Your task to perform on an android device: Show me productivity apps on the Play Store Image 0: 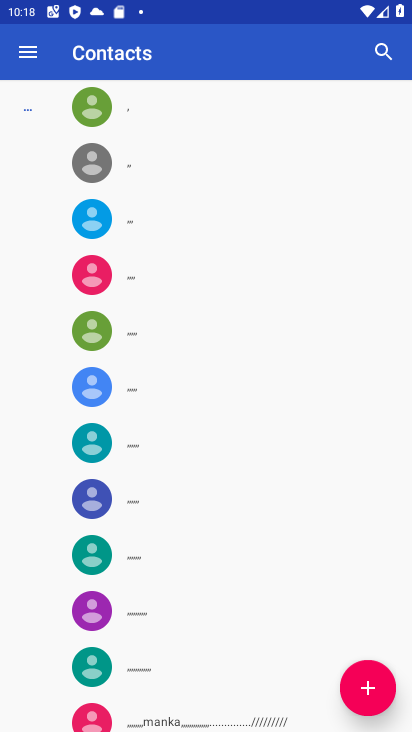
Step 0: press back button
Your task to perform on an android device: Show me productivity apps on the Play Store Image 1: 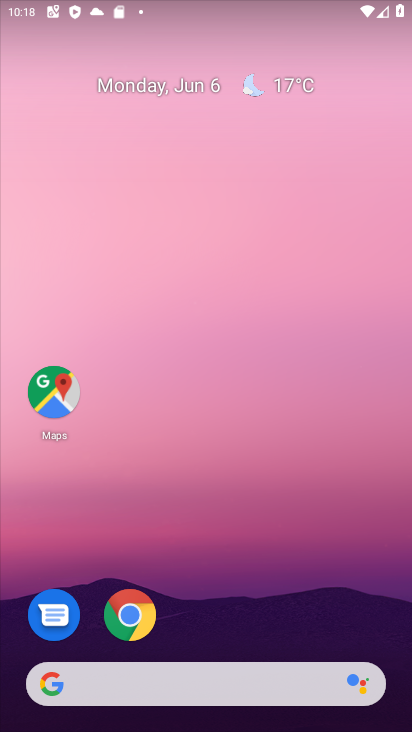
Step 1: drag from (257, 628) to (327, 69)
Your task to perform on an android device: Show me productivity apps on the Play Store Image 2: 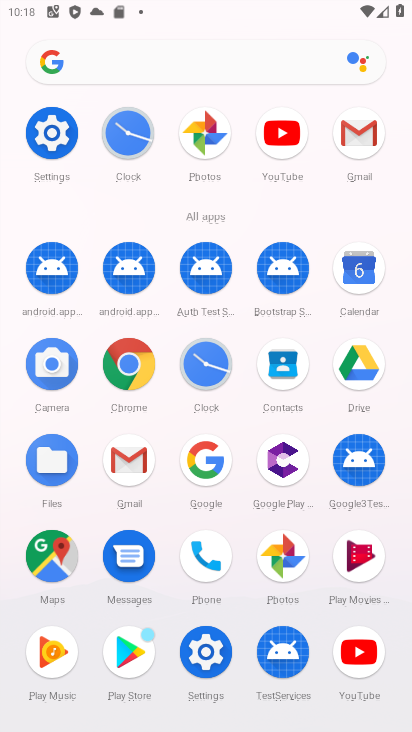
Step 2: click (129, 662)
Your task to perform on an android device: Show me productivity apps on the Play Store Image 3: 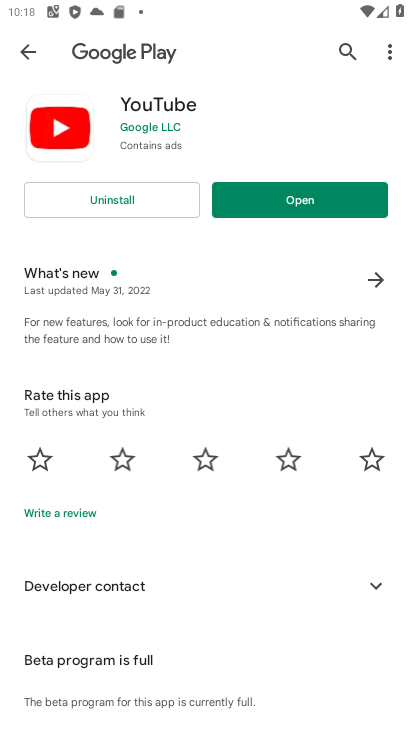
Step 3: click (19, 30)
Your task to perform on an android device: Show me productivity apps on the Play Store Image 4: 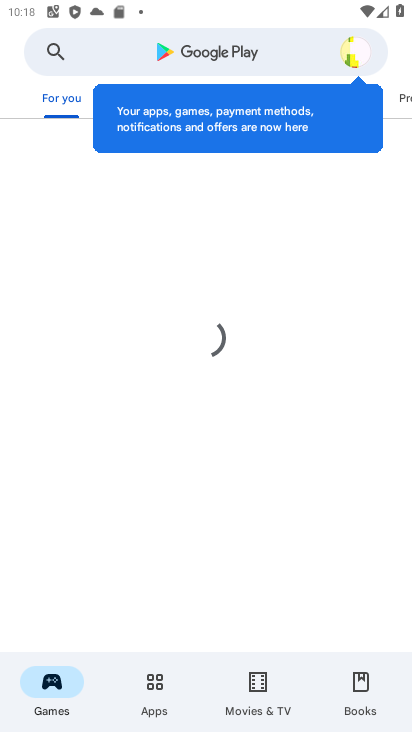
Step 4: click (156, 702)
Your task to perform on an android device: Show me productivity apps on the Play Store Image 5: 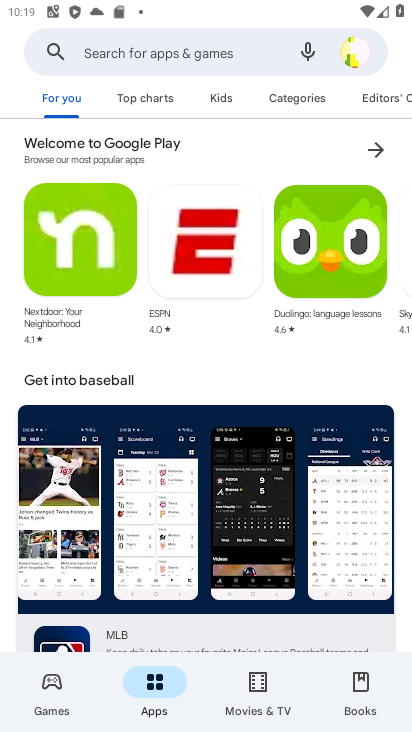
Step 5: drag from (179, 530) to (238, 106)
Your task to perform on an android device: Show me productivity apps on the Play Store Image 6: 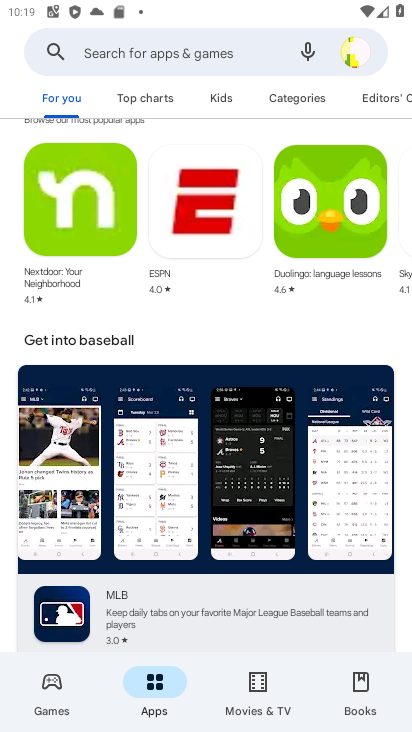
Step 6: drag from (185, 545) to (194, 133)
Your task to perform on an android device: Show me productivity apps on the Play Store Image 7: 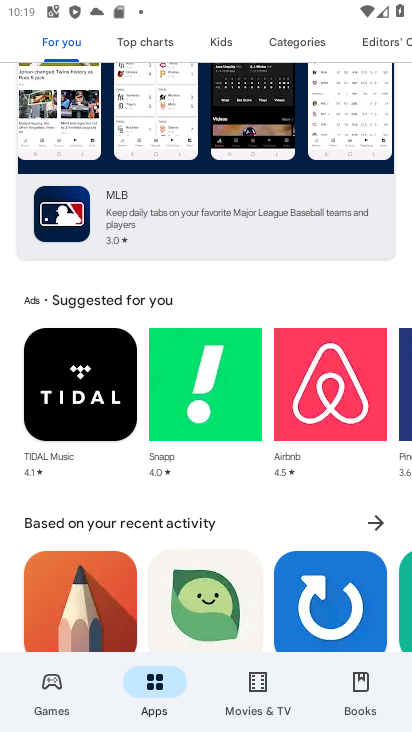
Step 7: drag from (244, 606) to (215, 670)
Your task to perform on an android device: Show me productivity apps on the Play Store Image 8: 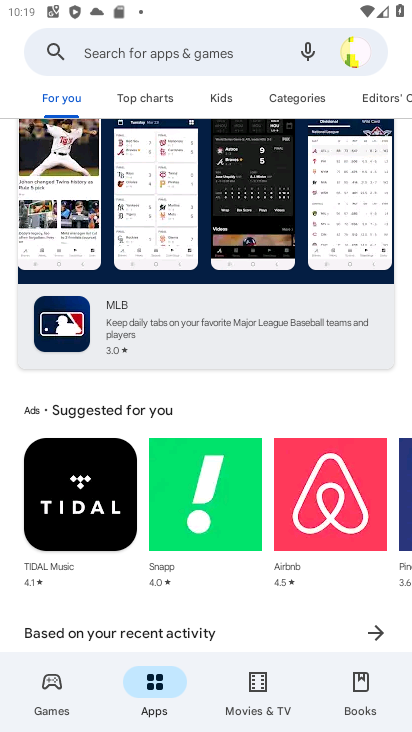
Step 8: drag from (261, 259) to (195, 689)
Your task to perform on an android device: Show me productivity apps on the Play Store Image 9: 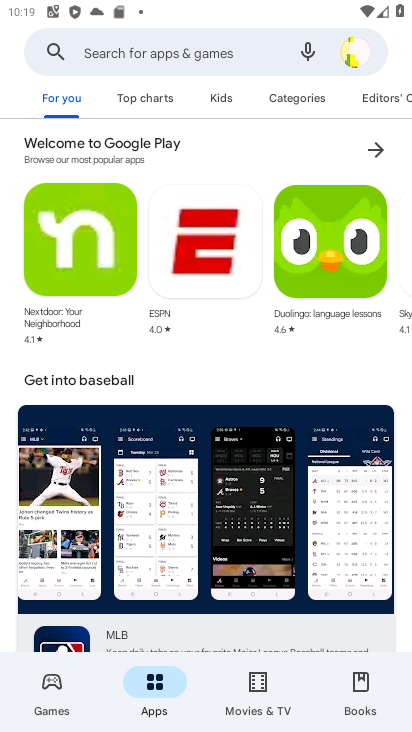
Step 9: drag from (243, 283) to (257, 188)
Your task to perform on an android device: Show me productivity apps on the Play Store Image 10: 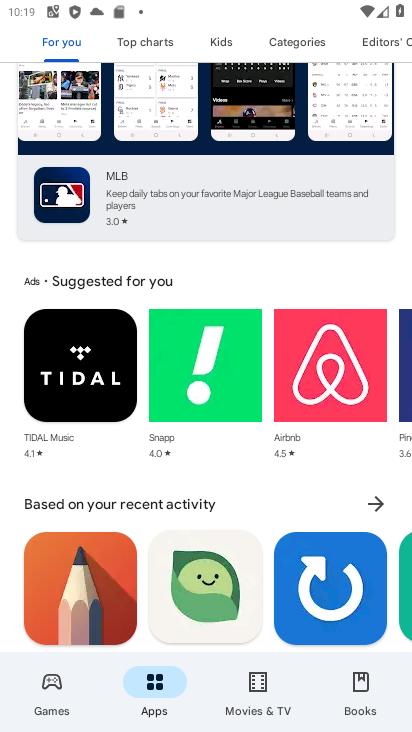
Step 10: drag from (228, 522) to (291, 105)
Your task to perform on an android device: Show me productivity apps on the Play Store Image 11: 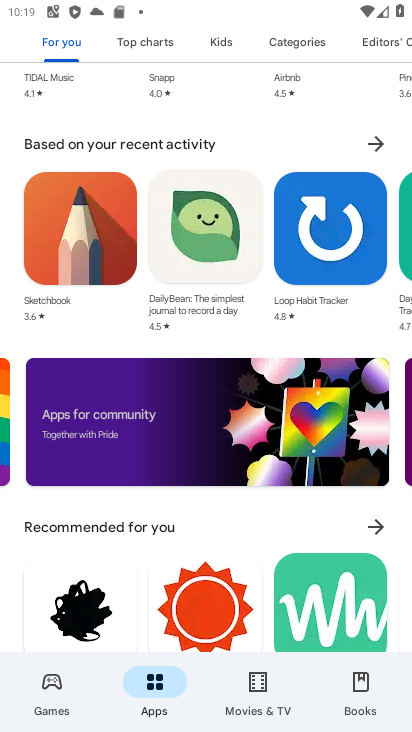
Step 11: drag from (225, 509) to (289, 65)
Your task to perform on an android device: Show me productivity apps on the Play Store Image 12: 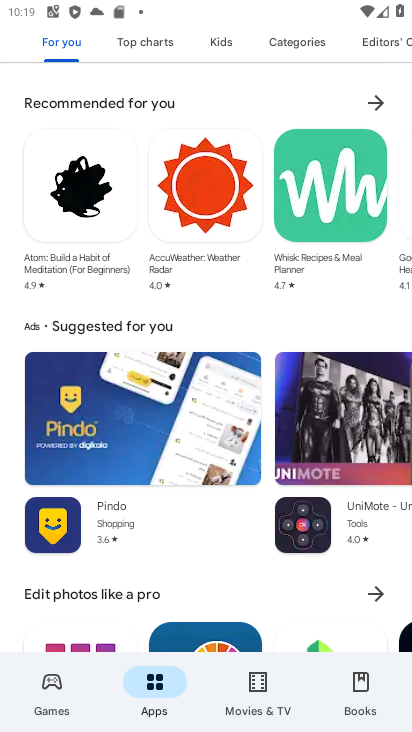
Step 12: drag from (225, 584) to (280, 100)
Your task to perform on an android device: Show me productivity apps on the Play Store Image 13: 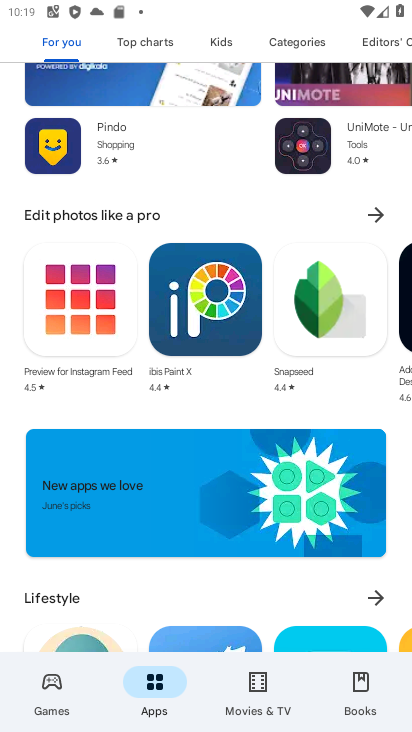
Step 13: drag from (199, 543) to (274, 143)
Your task to perform on an android device: Show me productivity apps on the Play Store Image 14: 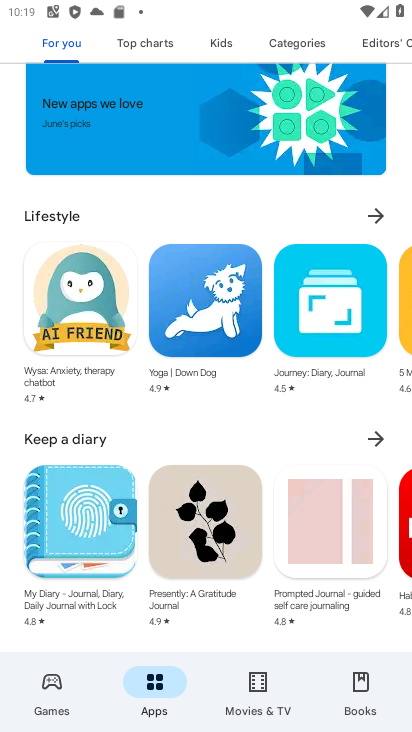
Step 14: drag from (238, 456) to (279, 164)
Your task to perform on an android device: Show me productivity apps on the Play Store Image 15: 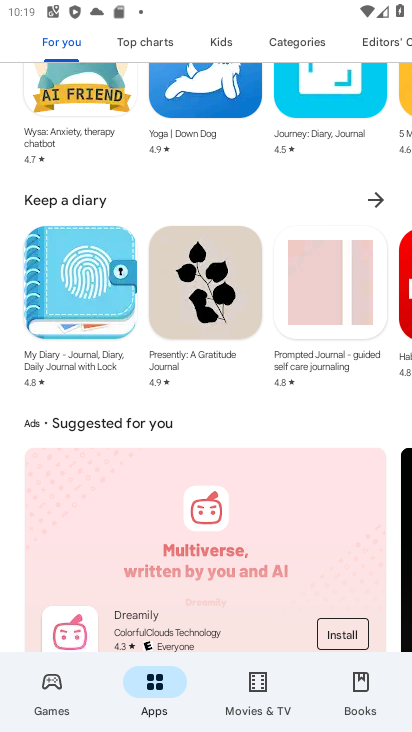
Step 15: drag from (219, 538) to (301, 105)
Your task to perform on an android device: Show me productivity apps on the Play Store Image 16: 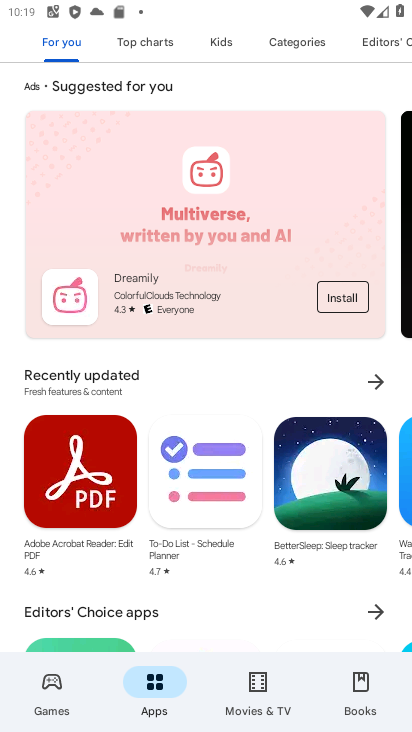
Step 16: drag from (248, 396) to (314, 180)
Your task to perform on an android device: Show me productivity apps on the Play Store Image 17: 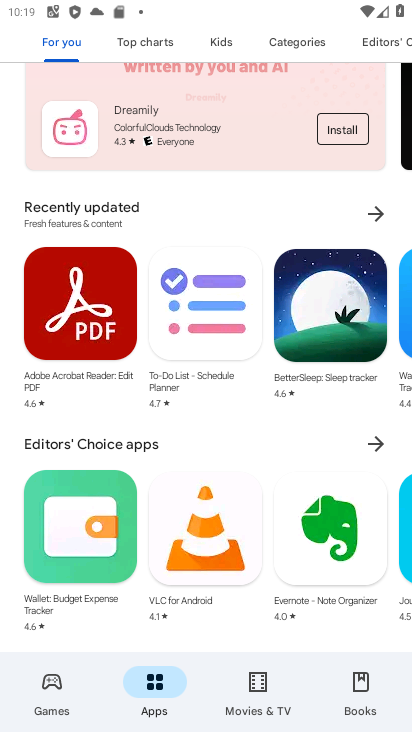
Step 17: drag from (245, 563) to (298, 236)
Your task to perform on an android device: Show me productivity apps on the Play Store Image 18: 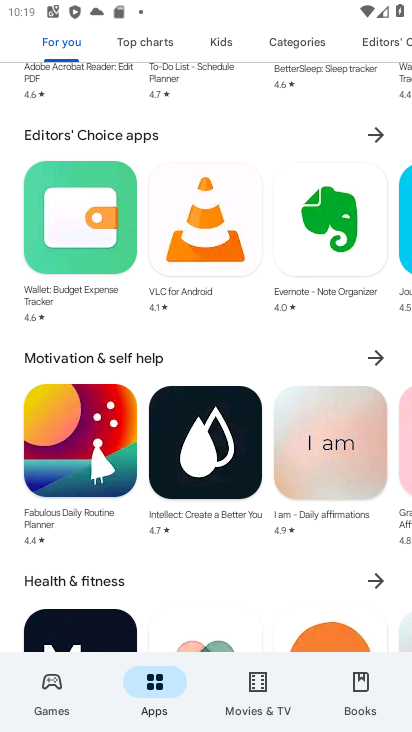
Step 18: drag from (218, 598) to (185, 284)
Your task to perform on an android device: Show me productivity apps on the Play Store Image 19: 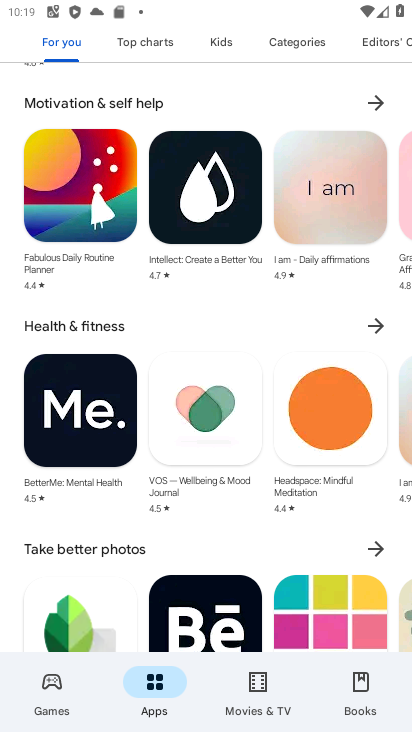
Step 19: drag from (201, 578) to (274, 178)
Your task to perform on an android device: Show me productivity apps on the Play Store Image 20: 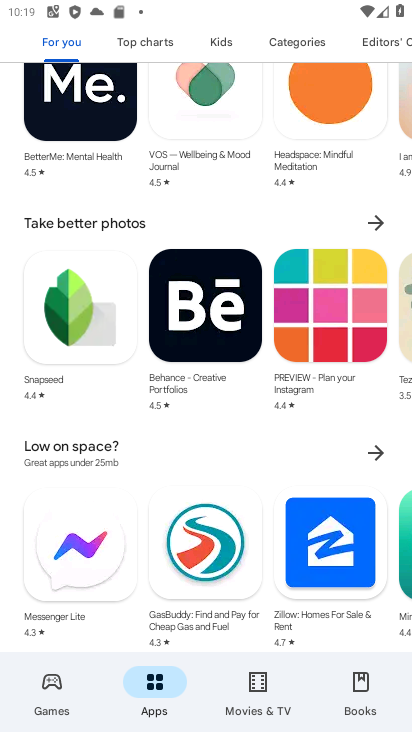
Step 20: drag from (172, 627) to (301, 111)
Your task to perform on an android device: Show me productivity apps on the Play Store Image 21: 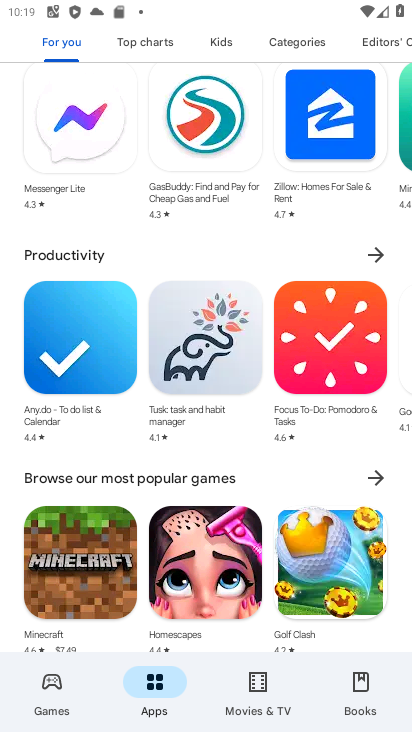
Step 21: click (382, 249)
Your task to perform on an android device: Show me productivity apps on the Play Store Image 22: 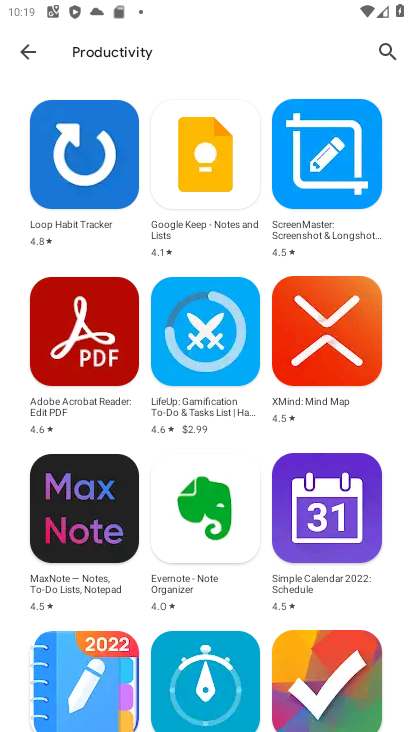
Step 22: task complete